Your task to perform on an android device: Open my contact list Image 0: 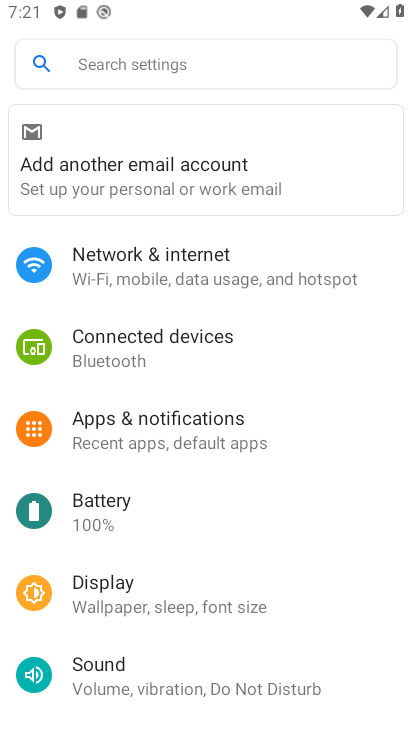
Step 0: press back button
Your task to perform on an android device: Open my contact list Image 1: 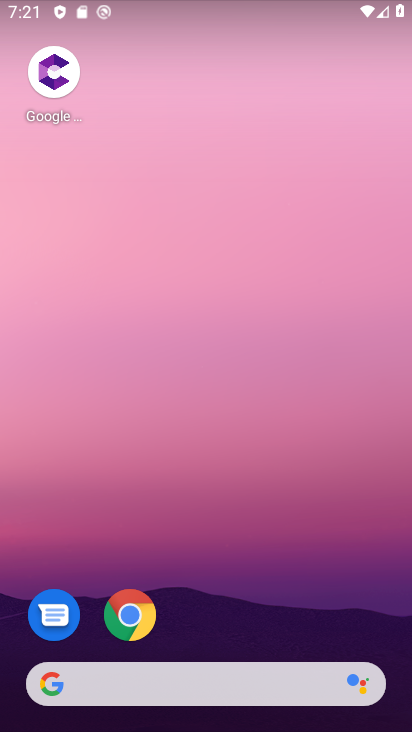
Step 1: drag from (247, 615) to (189, 187)
Your task to perform on an android device: Open my contact list Image 2: 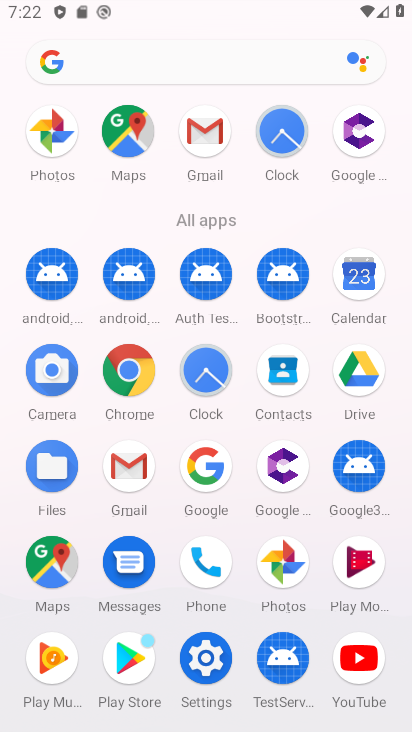
Step 2: click (282, 370)
Your task to perform on an android device: Open my contact list Image 3: 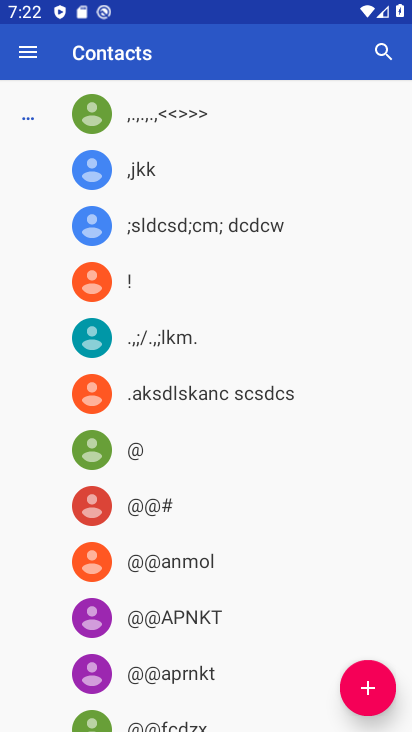
Step 3: task complete